Your task to perform on an android device: Show me recent news Image 0: 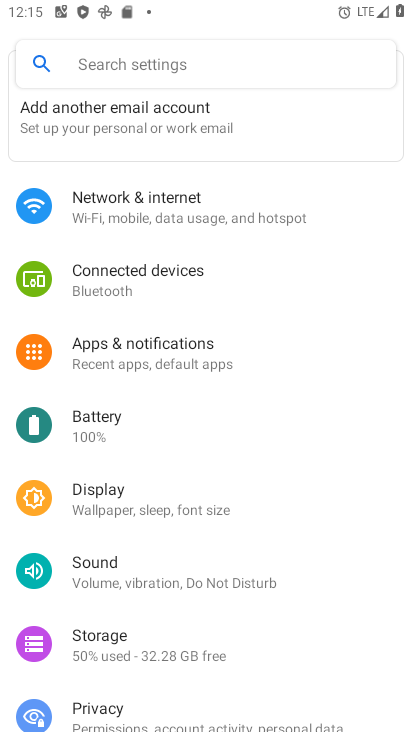
Step 0: press home button
Your task to perform on an android device: Show me recent news Image 1: 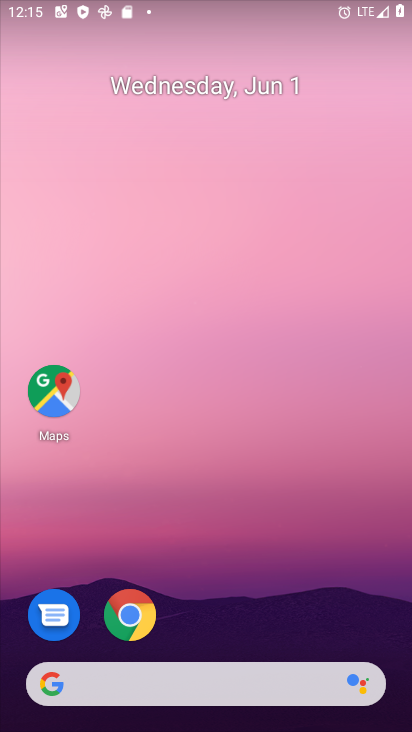
Step 1: drag from (303, 538) to (331, 0)
Your task to perform on an android device: Show me recent news Image 2: 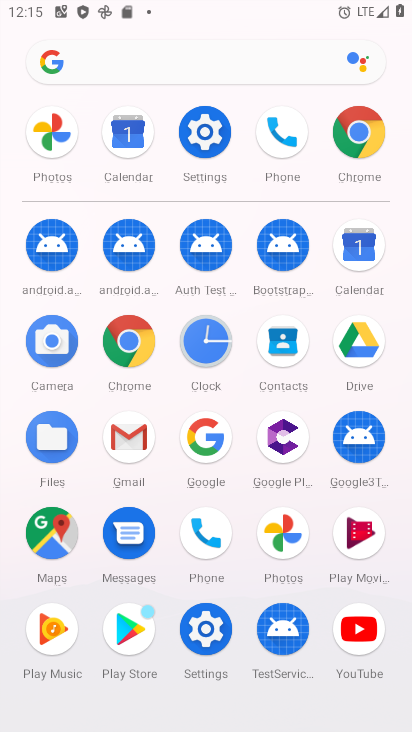
Step 2: click (368, 125)
Your task to perform on an android device: Show me recent news Image 3: 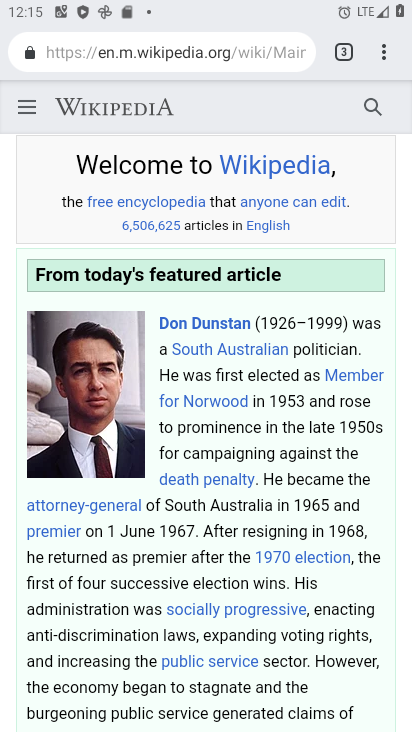
Step 3: task complete